Your task to perform on an android device: choose inbox layout in the gmail app Image 0: 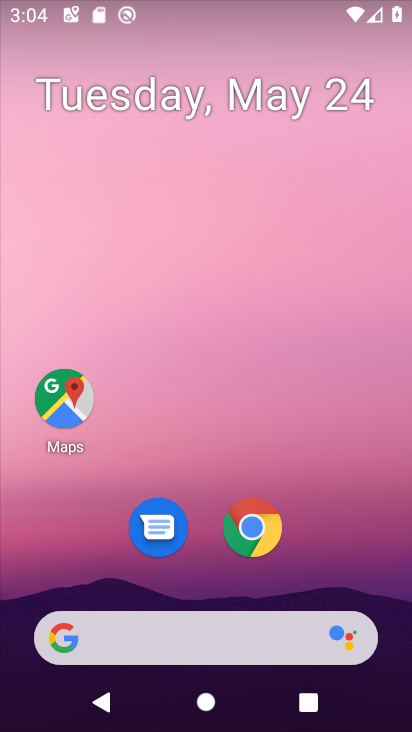
Step 0: drag from (327, 587) to (289, 13)
Your task to perform on an android device: choose inbox layout in the gmail app Image 1: 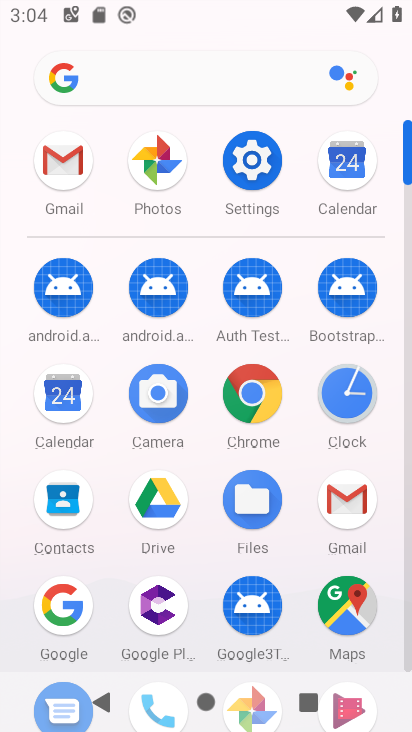
Step 1: click (67, 162)
Your task to perform on an android device: choose inbox layout in the gmail app Image 2: 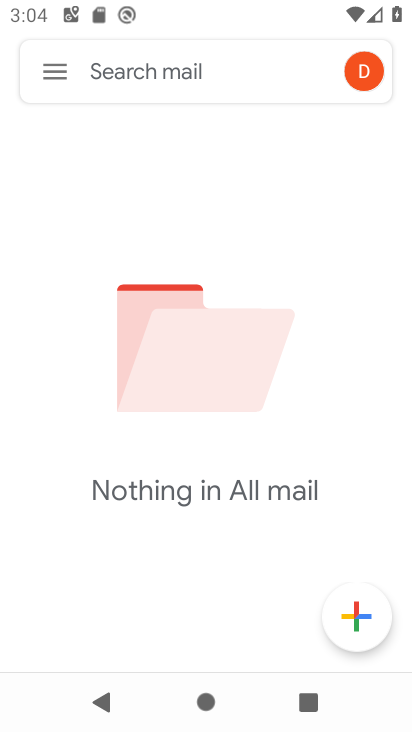
Step 2: click (52, 72)
Your task to perform on an android device: choose inbox layout in the gmail app Image 3: 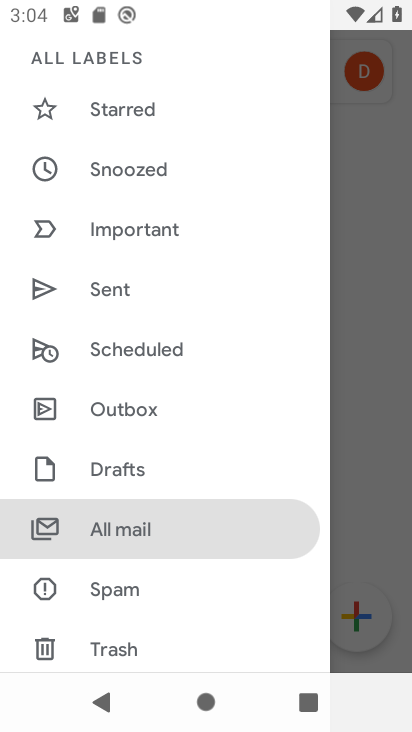
Step 3: drag from (192, 573) to (167, 64)
Your task to perform on an android device: choose inbox layout in the gmail app Image 4: 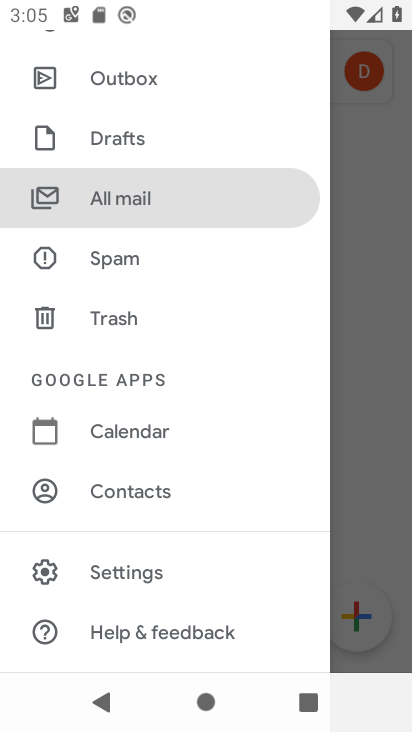
Step 4: click (103, 578)
Your task to perform on an android device: choose inbox layout in the gmail app Image 5: 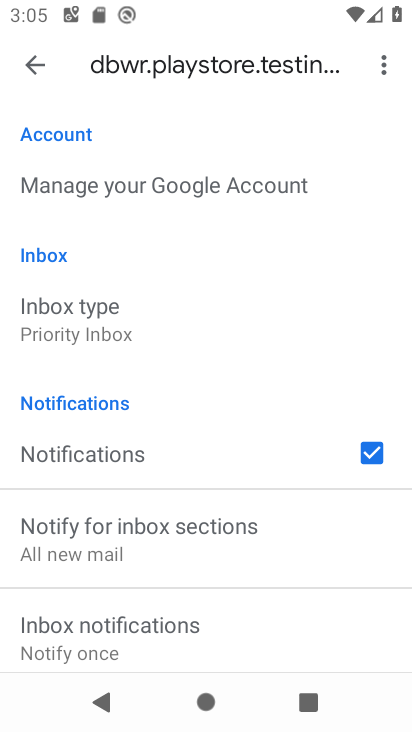
Step 5: click (92, 317)
Your task to perform on an android device: choose inbox layout in the gmail app Image 6: 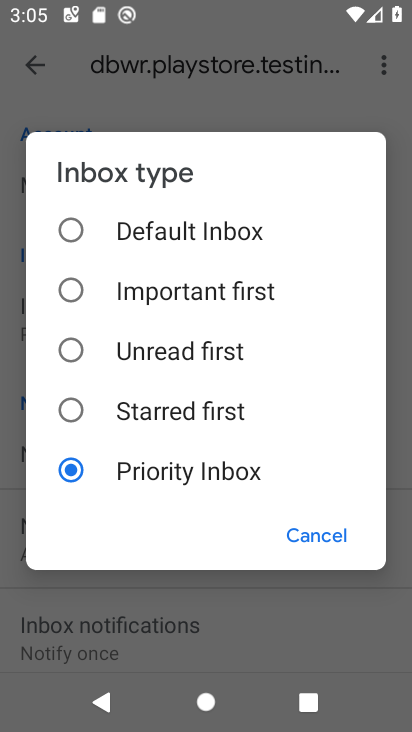
Step 6: click (69, 407)
Your task to perform on an android device: choose inbox layout in the gmail app Image 7: 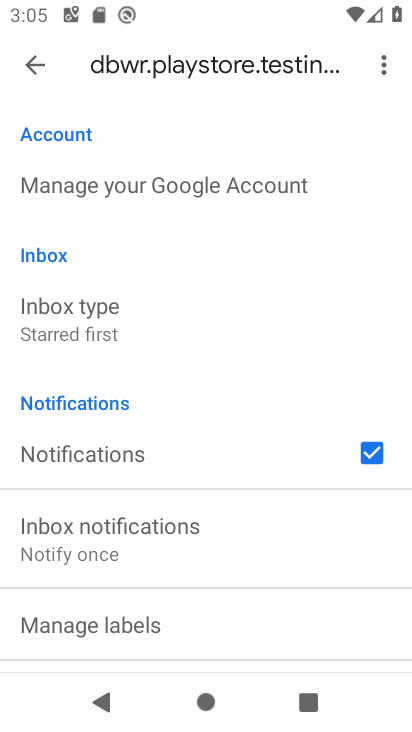
Step 7: task complete